Your task to perform on an android device: toggle priority inbox in the gmail app Image 0: 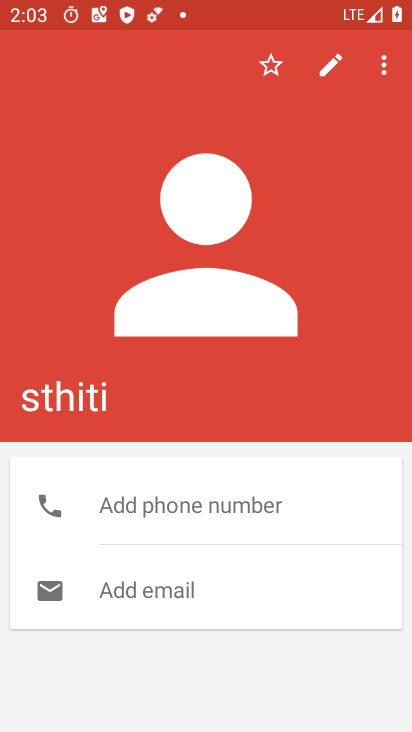
Step 0: press home button
Your task to perform on an android device: toggle priority inbox in the gmail app Image 1: 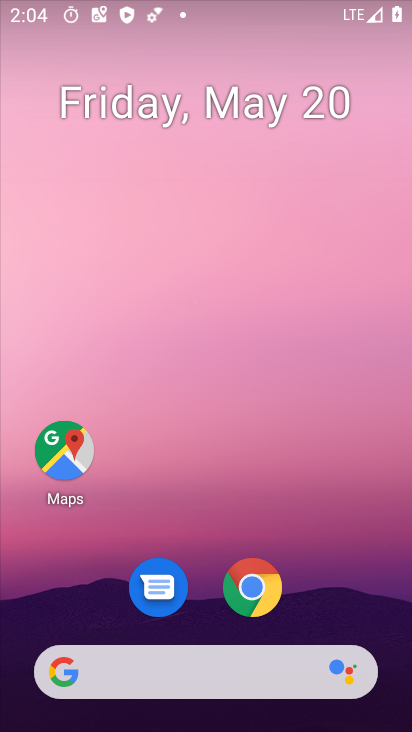
Step 1: drag from (312, 570) to (288, 122)
Your task to perform on an android device: toggle priority inbox in the gmail app Image 2: 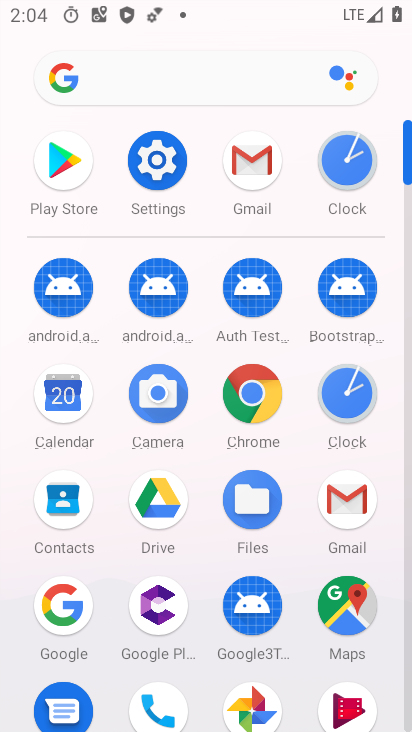
Step 2: click (256, 187)
Your task to perform on an android device: toggle priority inbox in the gmail app Image 3: 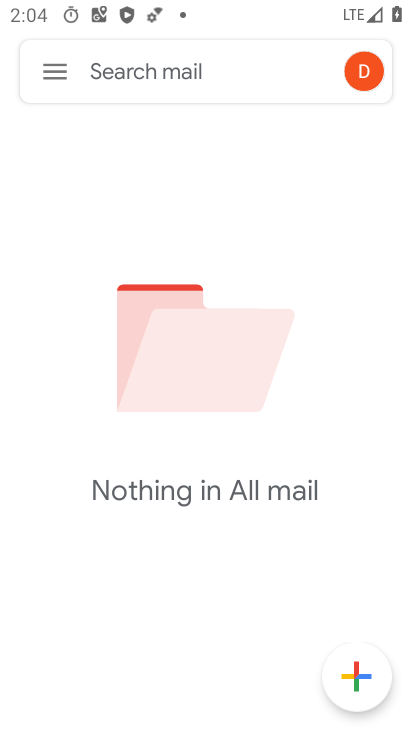
Step 3: click (58, 67)
Your task to perform on an android device: toggle priority inbox in the gmail app Image 4: 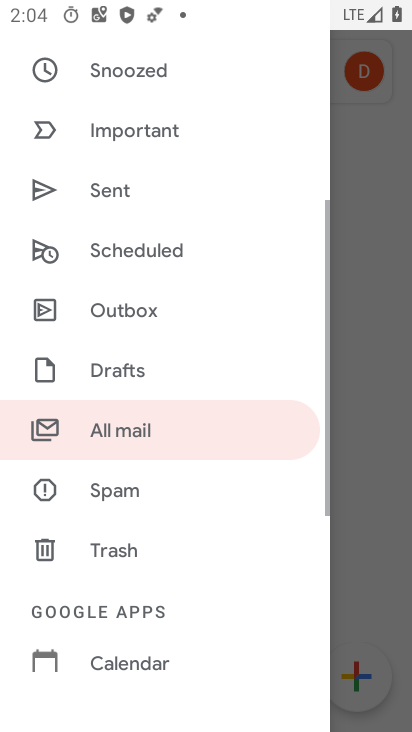
Step 4: drag from (137, 616) to (241, 145)
Your task to perform on an android device: toggle priority inbox in the gmail app Image 5: 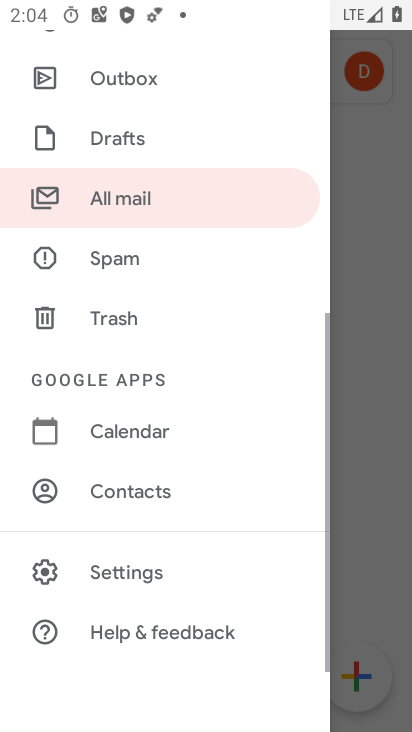
Step 5: click (116, 565)
Your task to perform on an android device: toggle priority inbox in the gmail app Image 6: 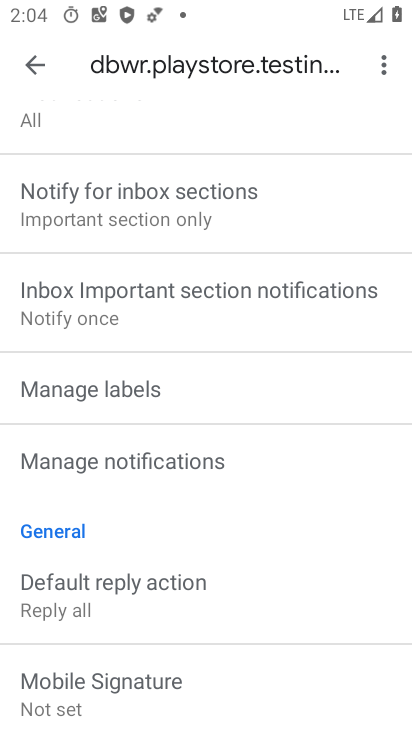
Step 6: drag from (207, 582) to (260, 168)
Your task to perform on an android device: toggle priority inbox in the gmail app Image 7: 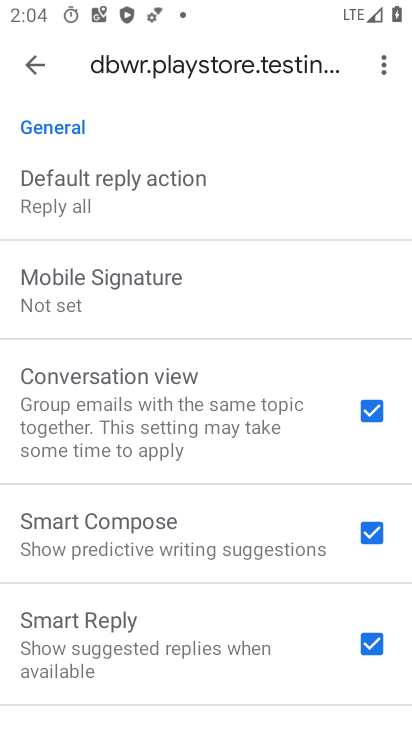
Step 7: drag from (260, 169) to (192, 572)
Your task to perform on an android device: toggle priority inbox in the gmail app Image 8: 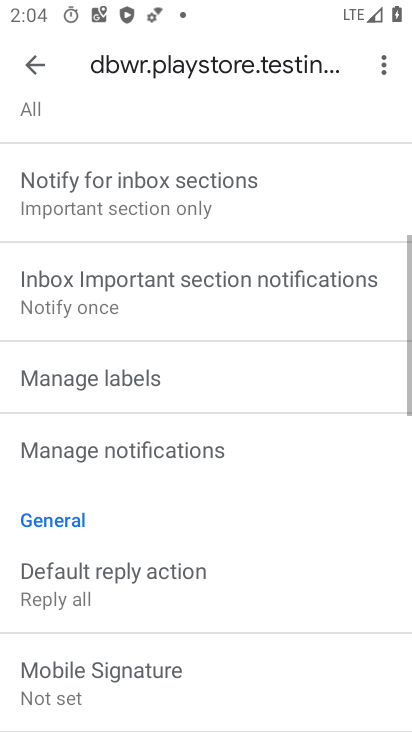
Step 8: drag from (181, 569) to (259, 137)
Your task to perform on an android device: toggle priority inbox in the gmail app Image 9: 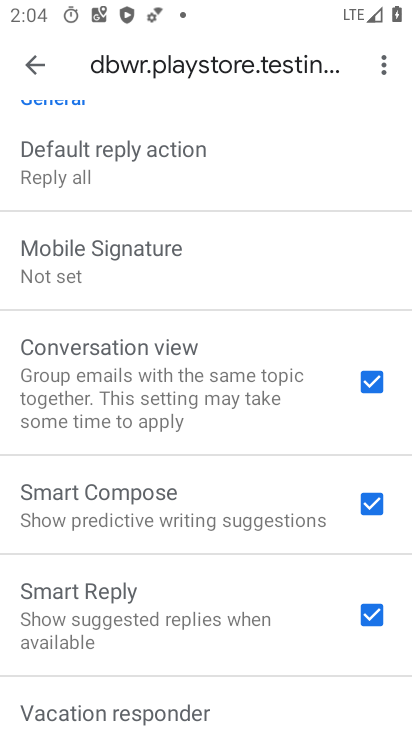
Step 9: drag from (199, 395) to (232, 606)
Your task to perform on an android device: toggle priority inbox in the gmail app Image 10: 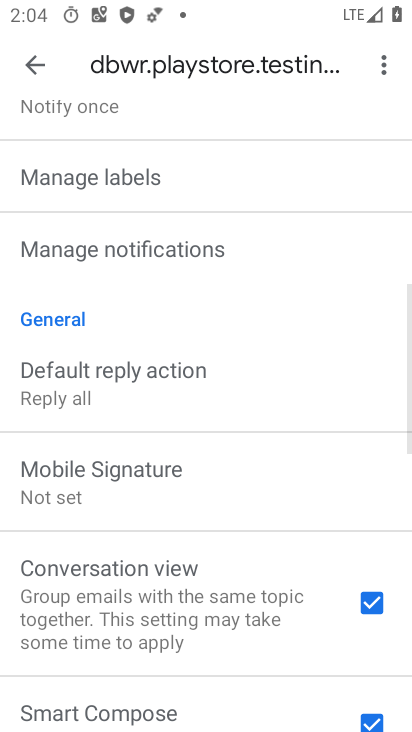
Step 10: drag from (221, 227) to (212, 608)
Your task to perform on an android device: toggle priority inbox in the gmail app Image 11: 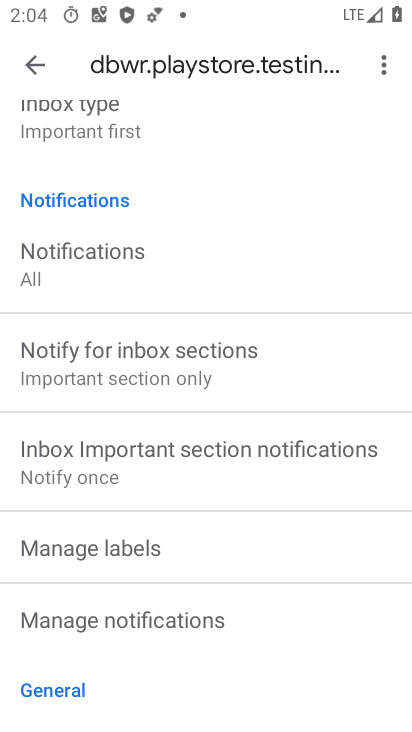
Step 11: drag from (193, 260) to (187, 696)
Your task to perform on an android device: toggle priority inbox in the gmail app Image 12: 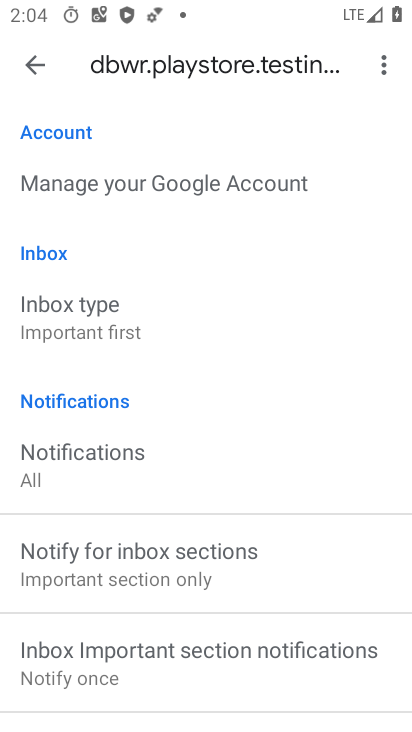
Step 12: click (93, 335)
Your task to perform on an android device: toggle priority inbox in the gmail app Image 13: 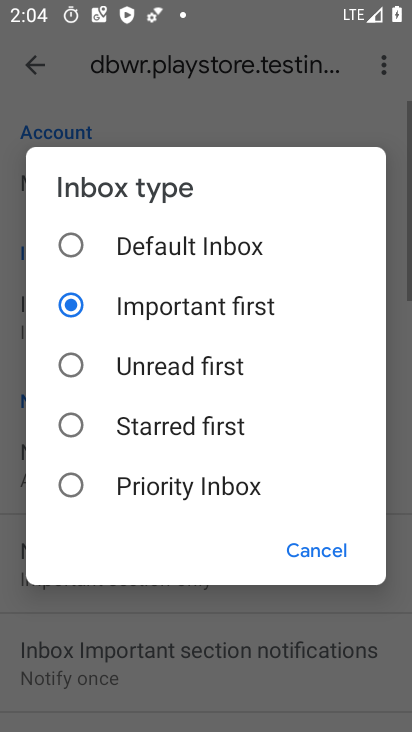
Step 13: click (159, 479)
Your task to perform on an android device: toggle priority inbox in the gmail app Image 14: 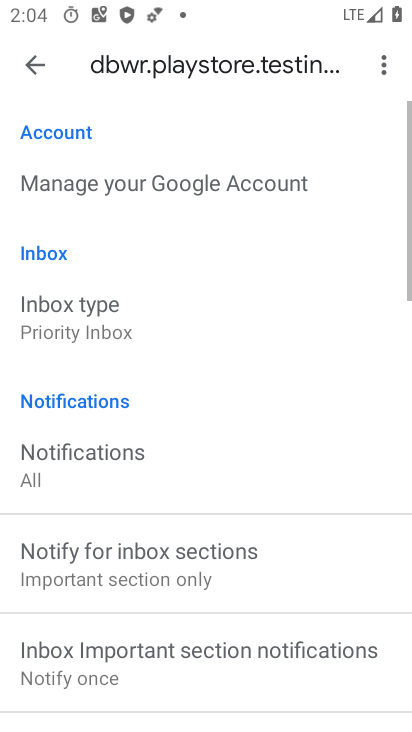
Step 14: task complete